Your task to perform on an android device: turn off wifi Image 0: 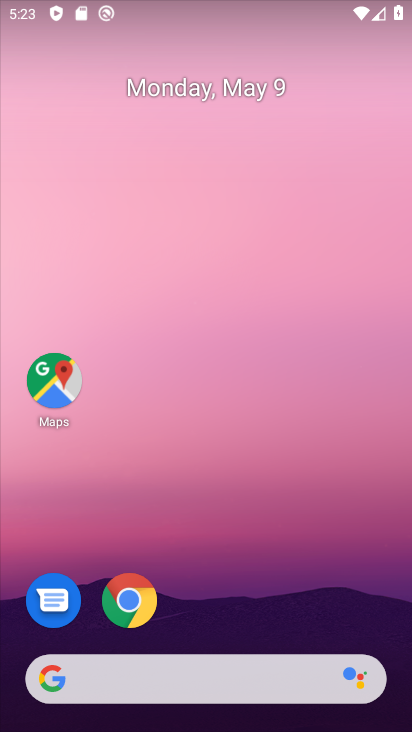
Step 0: drag from (217, 624) to (404, 173)
Your task to perform on an android device: turn off wifi Image 1: 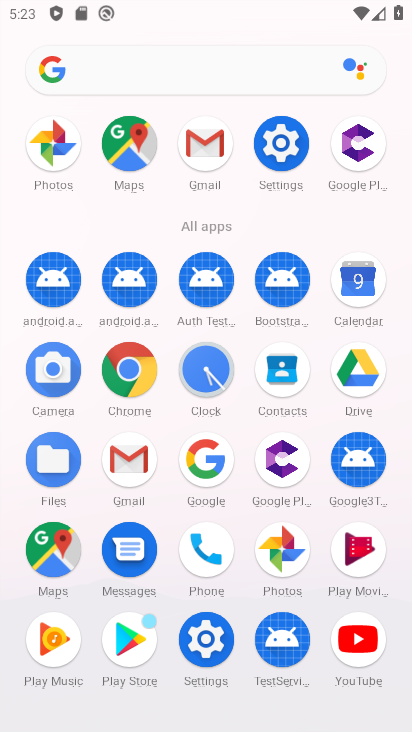
Step 1: click (282, 186)
Your task to perform on an android device: turn off wifi Image 2: 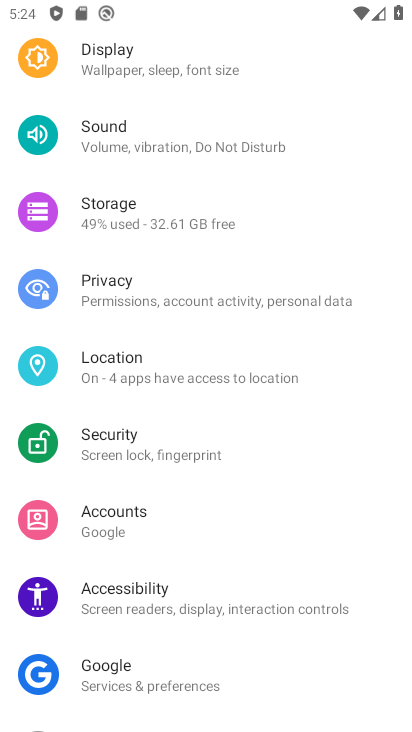
Step 2: drag from (227, 160) to (213, 646)
Your task to perform on an android device: turn off wifi Image 3: 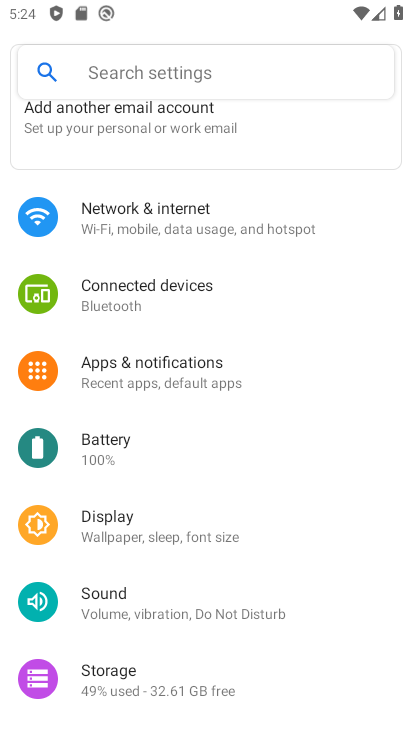
Step 3: click (197, 235)
Your task to perform on an android device: turn off wifi Image 4: 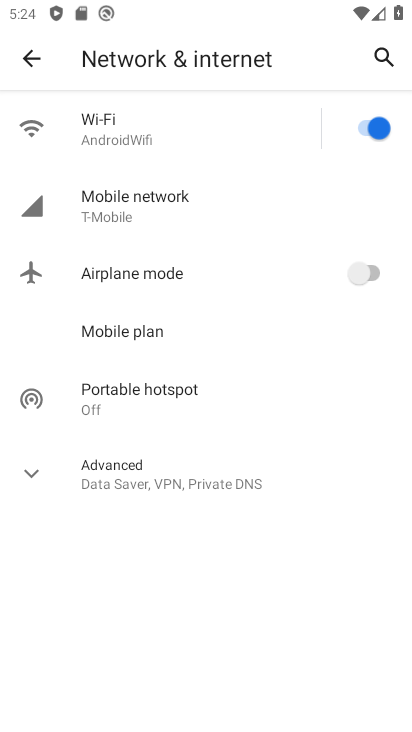
Step 4: click (366, 132)
Your task to perform on an android device: turn off wifi Image 5: 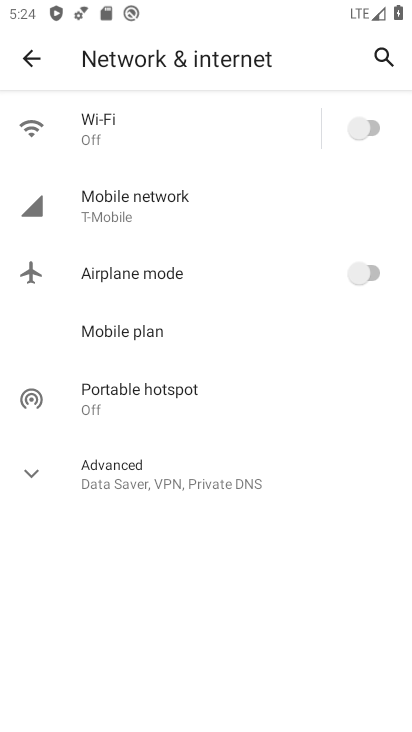
Step 5: task complete